Your task to perform on an android device: turn off translation in the chrome app Image 0: 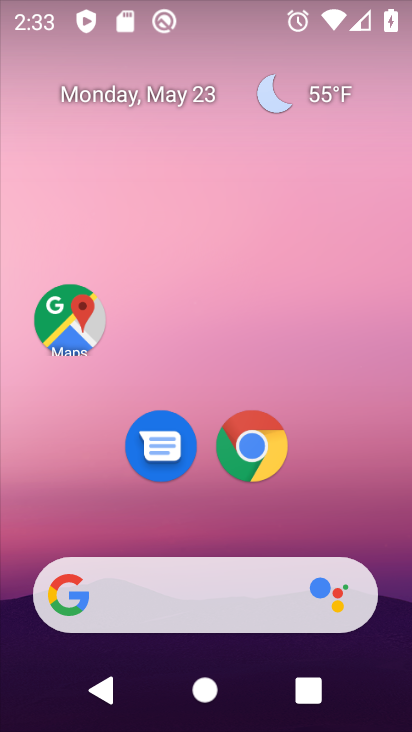
Step 0: click (270, 456)
Your task to perform on an android device: turn off translation in the chrome app Image 1: 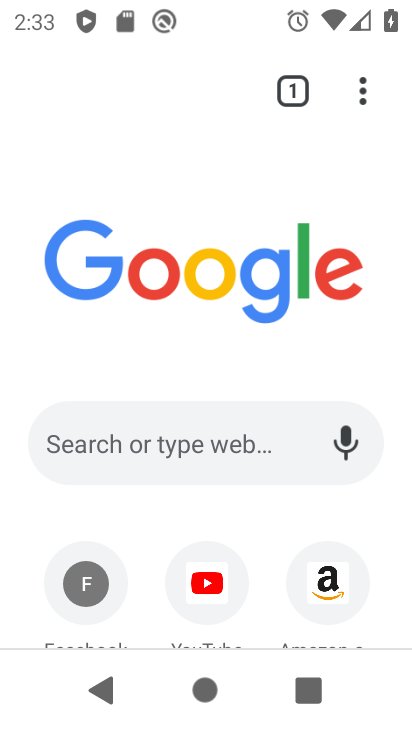
Step 1: click (365, 94)
Your task to perform on an android device: turn off translation in the chrome app Image 2: 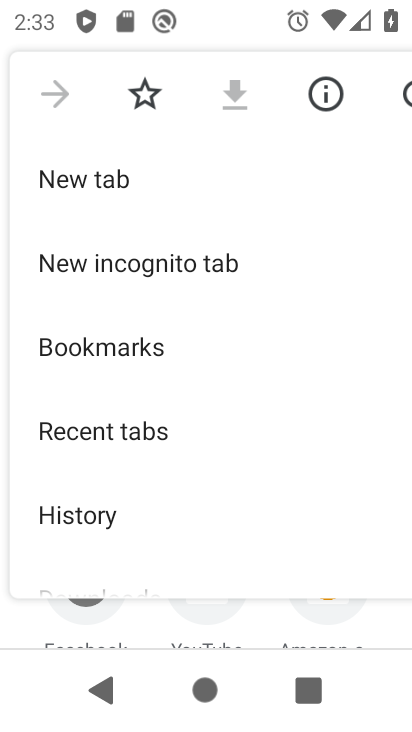
Step 2: drag from (149, 514) to (163, 281)
Your task to perform on an android device: turn off translation in the chrome app Image 3: 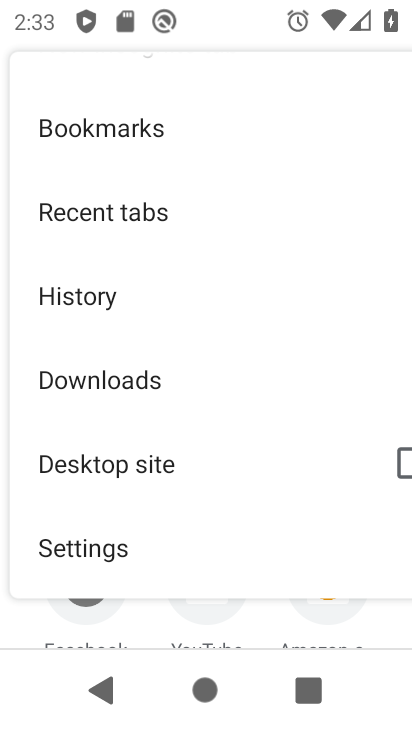
Step 3: drag from (181, 441) to (193, 261)
Your task to perform on an android device: turn off translation in the chrome app Image 4: 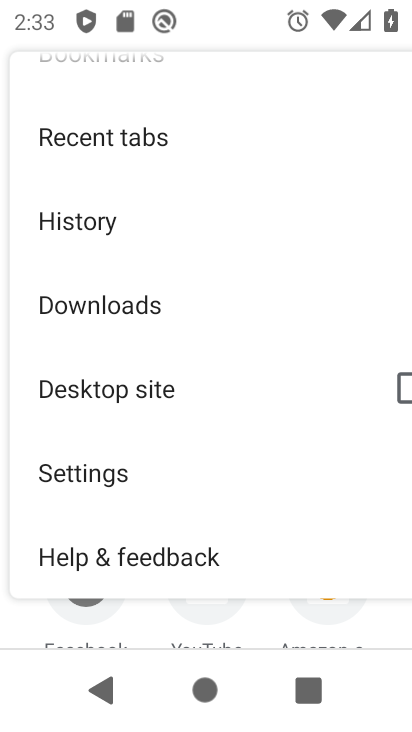
Step 4: click (95, 477)
Your task to perform on an android device: turn off translation in the chrome app Image 5: 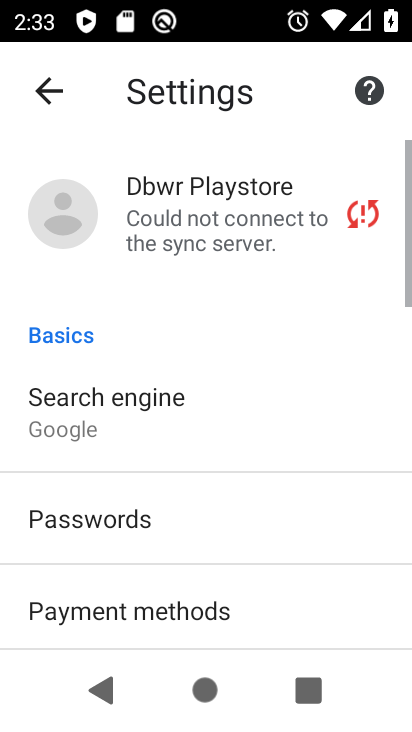
Step 5: drag from (203, 569) to (223, 301)
Your task to perform on an android device: turn off translation in the chrome app Image 6: 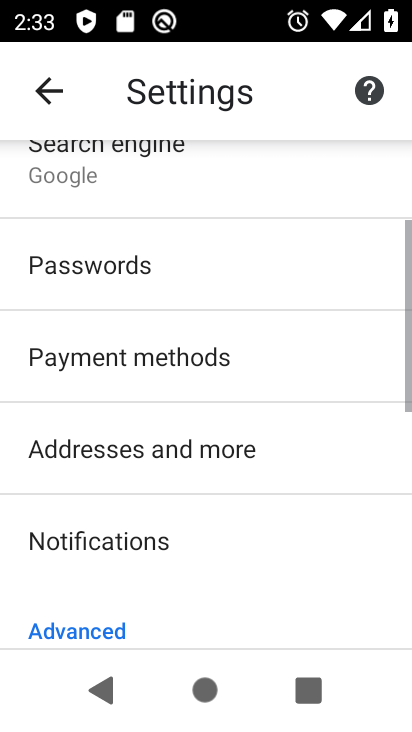
Step 6: drag from (231, 508) to (236, 296)
Your task to perform on an android device: turn off translation in the chrome app Image 7: 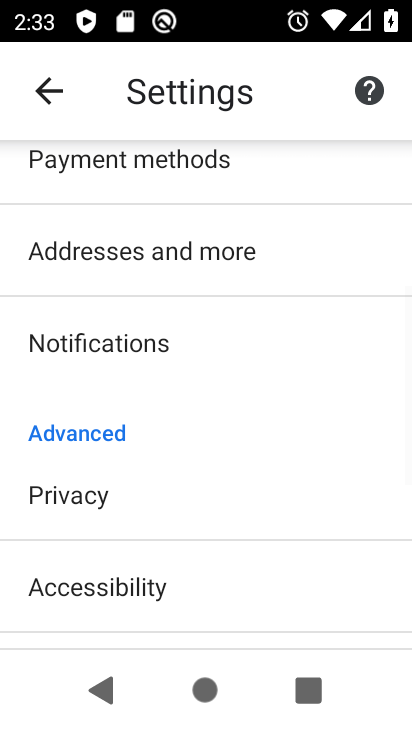
Step 7: drag from (209, 537) to (214, 329)
Your task to perform on an android device: turn off translation in the chrome app Image 8: 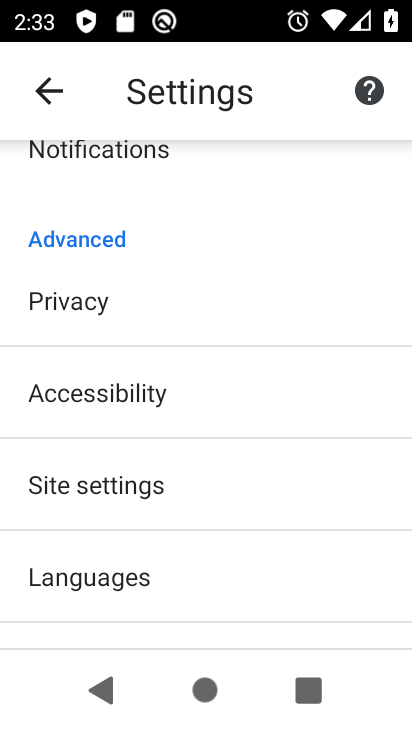
Step 8: click (188, 583)
Your task to perform on an android device: turn off translation in the chrome app Image 9: 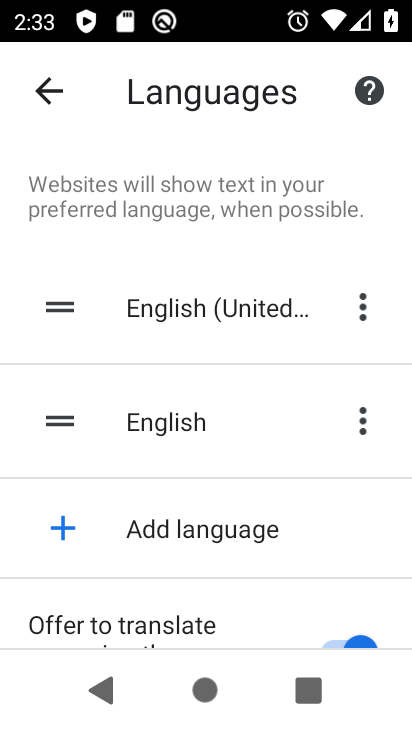
Step 9: drag from (238, 557) to (240, 360)
Your task to perform on an android device: turn off translation in the chrome app Image 10: 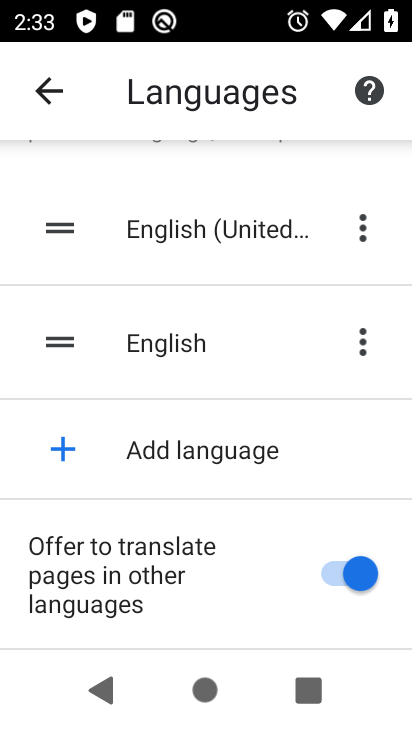
Step 10: click (329, 569)
Your task to perform on an android device: turn off translation in the chrome app Image 11: 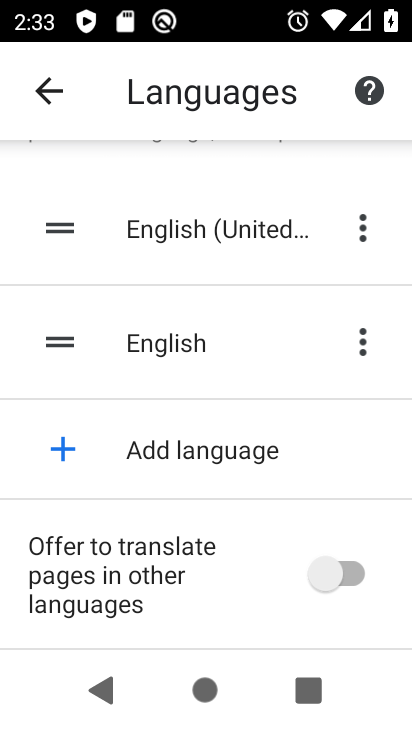
Step 11: task complete